Your task to perform on an android device: Go to accessibility settings Image 0: 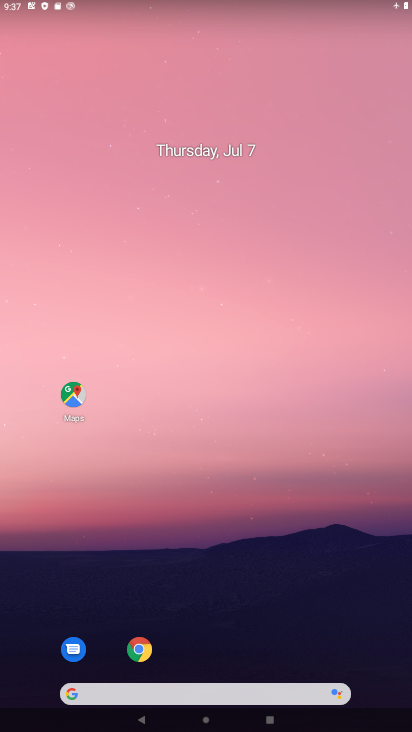
Step 0: click (230, 682)
Your task to perform on an android device: Go to accessibility settings Image 1: 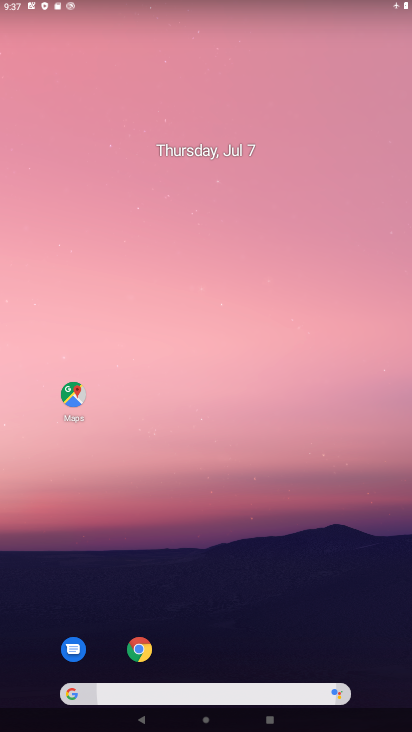
Step 1: drag from (224, 222) to (224, 15)
Your task to perform on an android device: Go to accessibility settings Image 2: 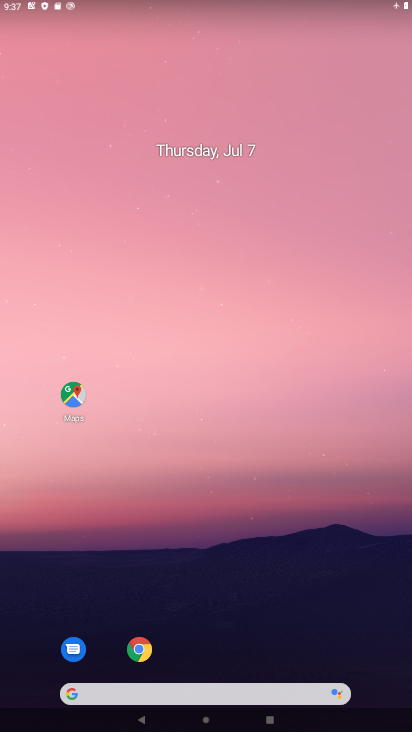
Step 2: drag from (322, 713) to (319, 131)
Your task to perform on an android device: Go to accessibility settings Image 3: 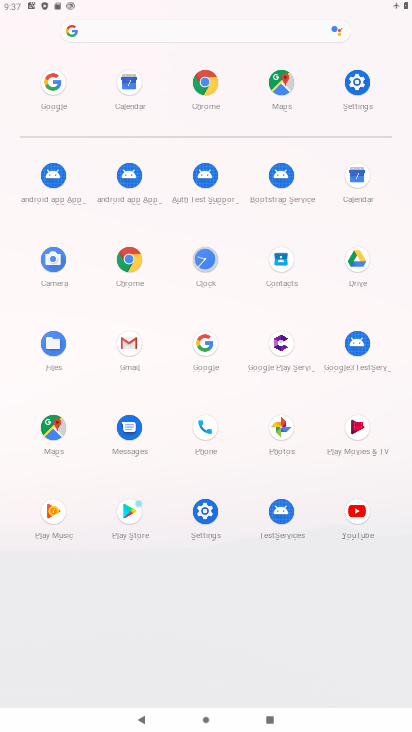
Step 3: click (352, 86)
Your task to perform on an android device: Go to accessibility settings Image 4: 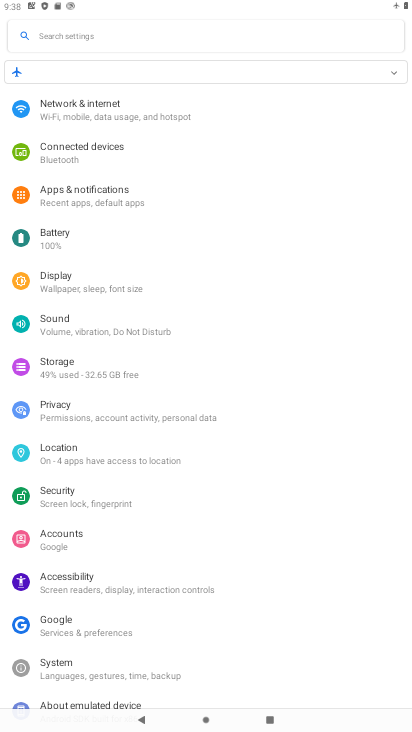
Step 4: click (74, 585)
Your task to perform on an android device: Go to accessibility settings Image 5: 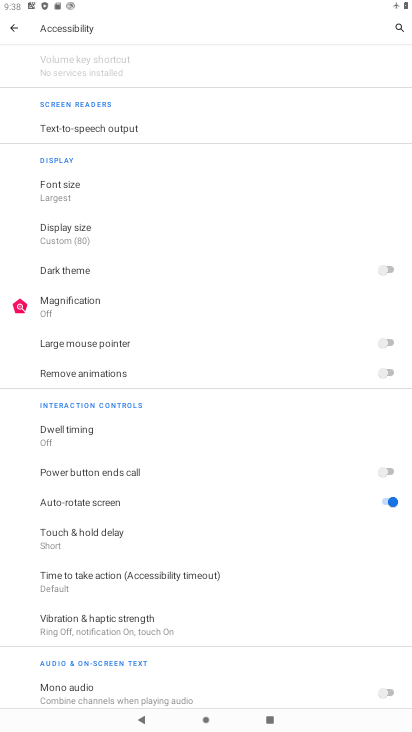
Step 5: task complete